Your task to perform on an android device: What's the weather going to be tomorrow? Image 0: 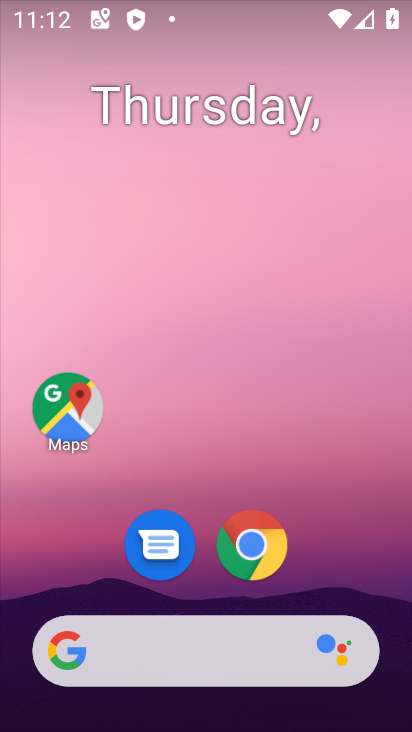
Step 0: drag from (305, 571) to (252, 17)
Your task to perform on an android device: What's the weather going to be tomorrow? Image 1: 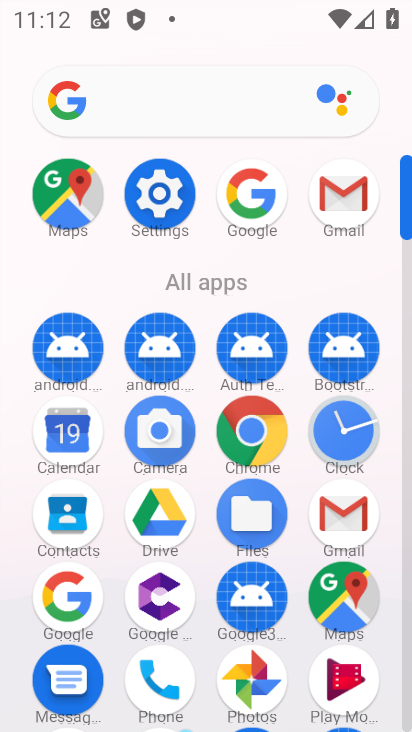
Step 1: click (67, 599)
Your task to perform on an android device: What's the weather going to be tomorrow? Image 2: 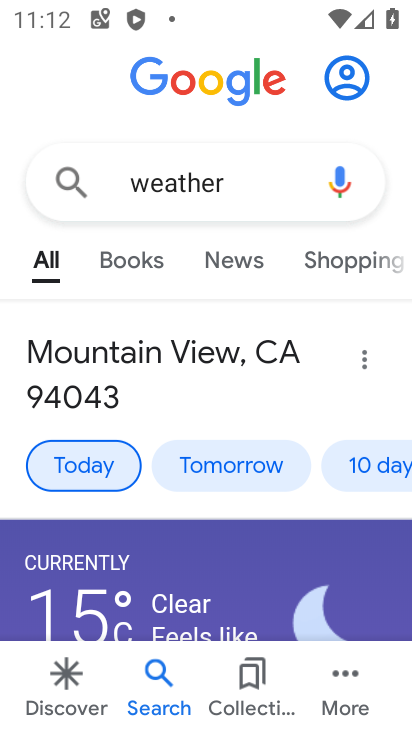
Step 2: click (213, 467)
Your task to perform on an android device: What's the weather going to be tomorrow? Image 3: 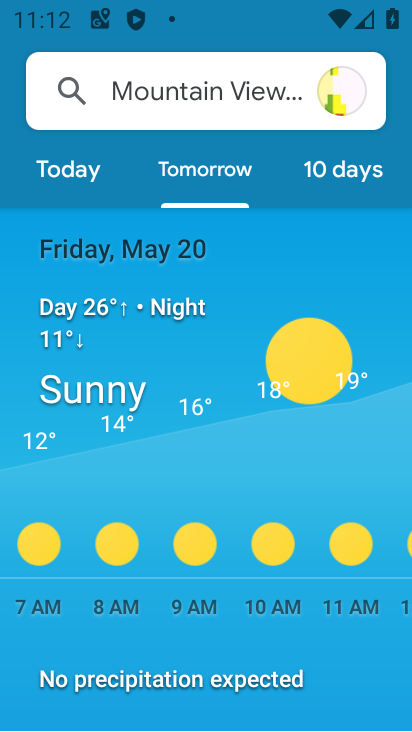
Step 3: drag from (245, 613) to (234, 341)
Your task to perform on an android device: What's the weather going to be tomorrow? Image 4: 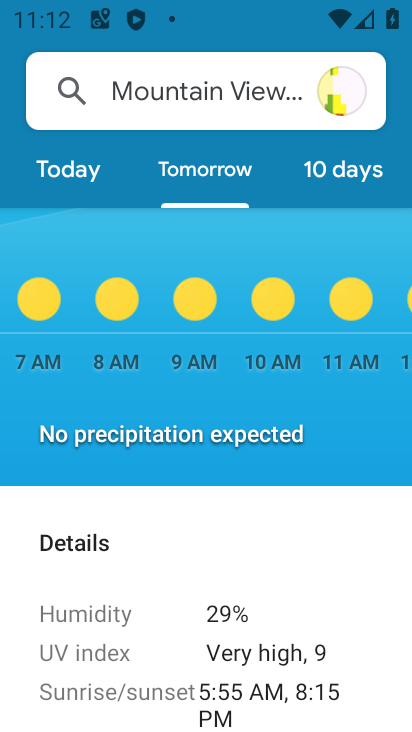
Step 4: click (224, 200)
Your task to perform on an android device: What's the weather going to be tomorrow? Image 5: 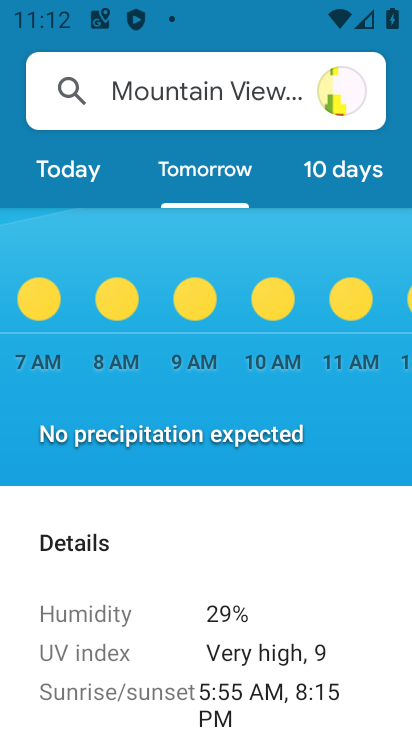
Step 5: task complete